Your task to perform on an android device: toggle improve location accuracy Image 0: 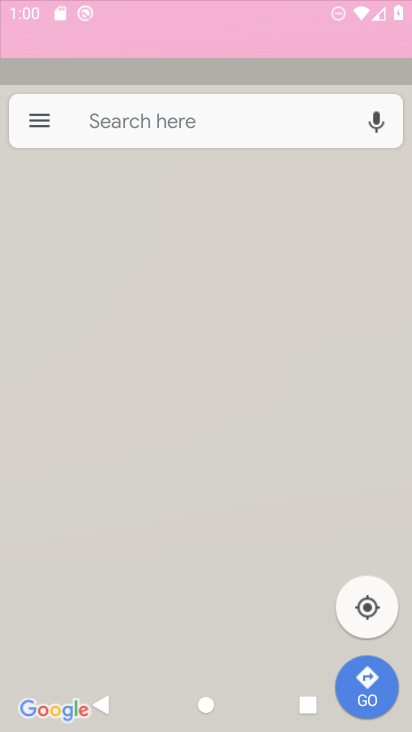
Step 0: drag from (205, 613) to (143, 85)
Your task to perform on an android device: toggle improve location accuracy Image 1: 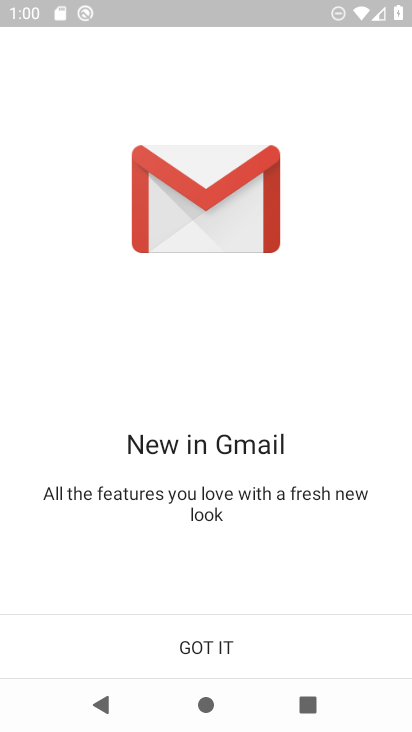
Step 1: press home button
Your task to perform on an android device: toggle improve location accuracy Image 2: 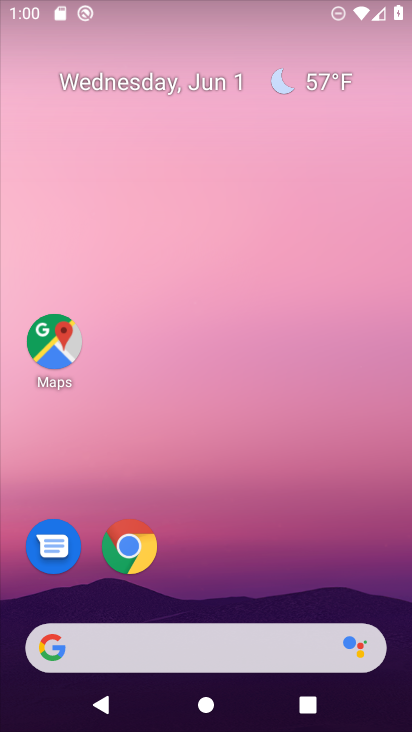
Step 2: drag from (182, 610) to (244, 10)
Your task to perform on an android device: toggle improve location accuracy Image 3: 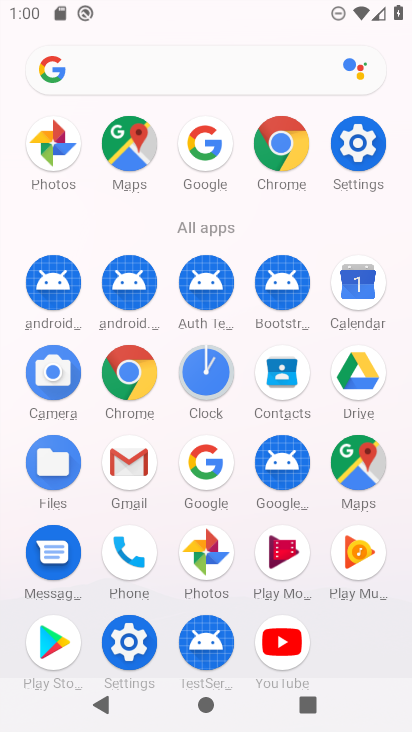
Step 3: click (370, 168)
Your task to perform on an android device: toggle improve location accuracy Image 4: 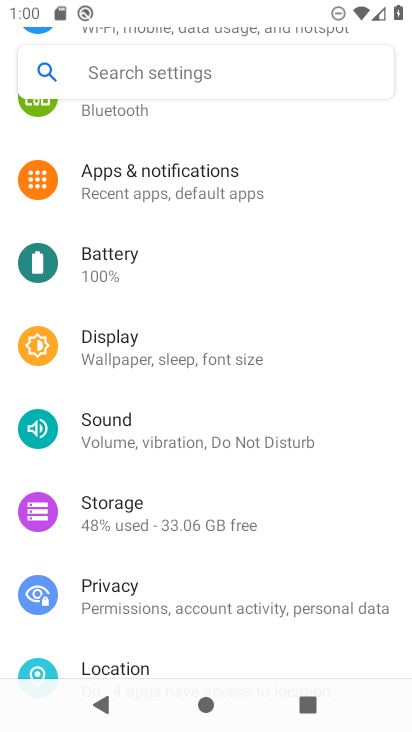
Step 4: click (119, 639)
Your task to perform on an android device: toggle improve location accuracy Image 5: 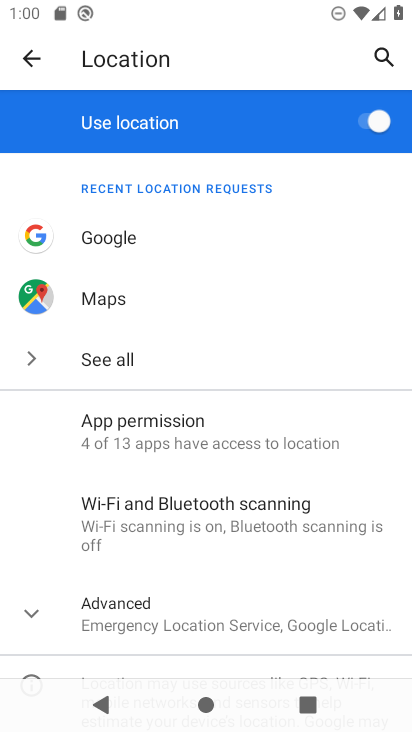
Step 5: click (236, 619)
Your task to perform on an android device: toggle improve location accuracy Image 6: 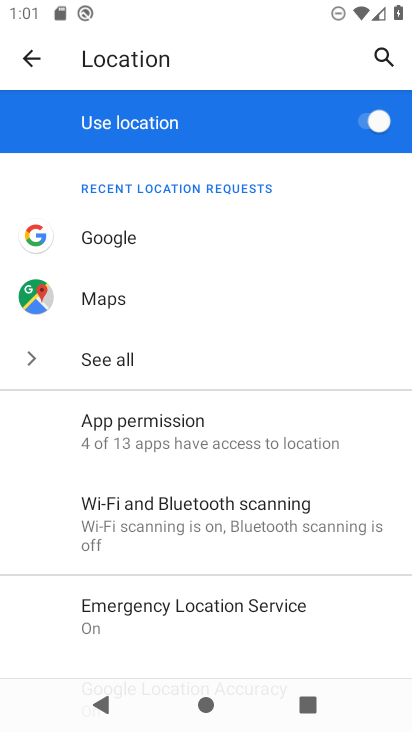
Step 6: drag from (154, 605) to (146, 198)
Your task to perform on an android device: toggle improve location accuracy Image 7: 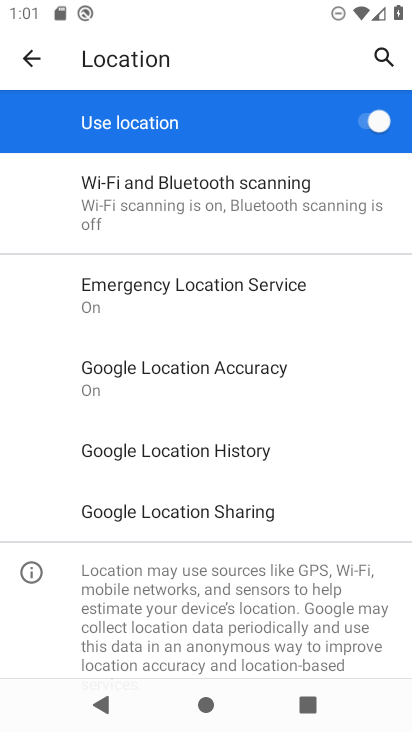
Step 7: click (221, 371)
Your task to perform on an android device: toggle improve location accuracy Image 8: 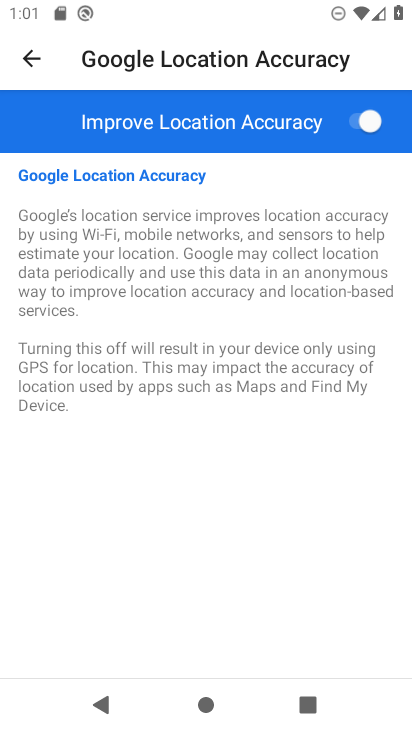
Step 8: click (352, 115)
Your task to perform on an android device: toggle improve location accuracy Image 9: 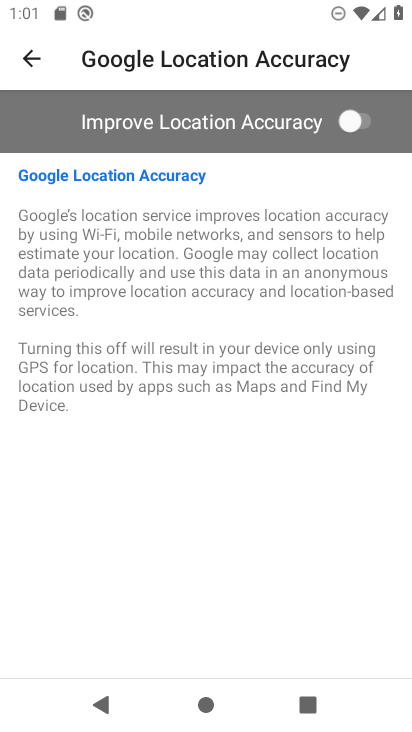
Step 9: task complete